Your task to perform on an android device: open app "DoorDash - Dasher" (install if not already installed) Image 0: 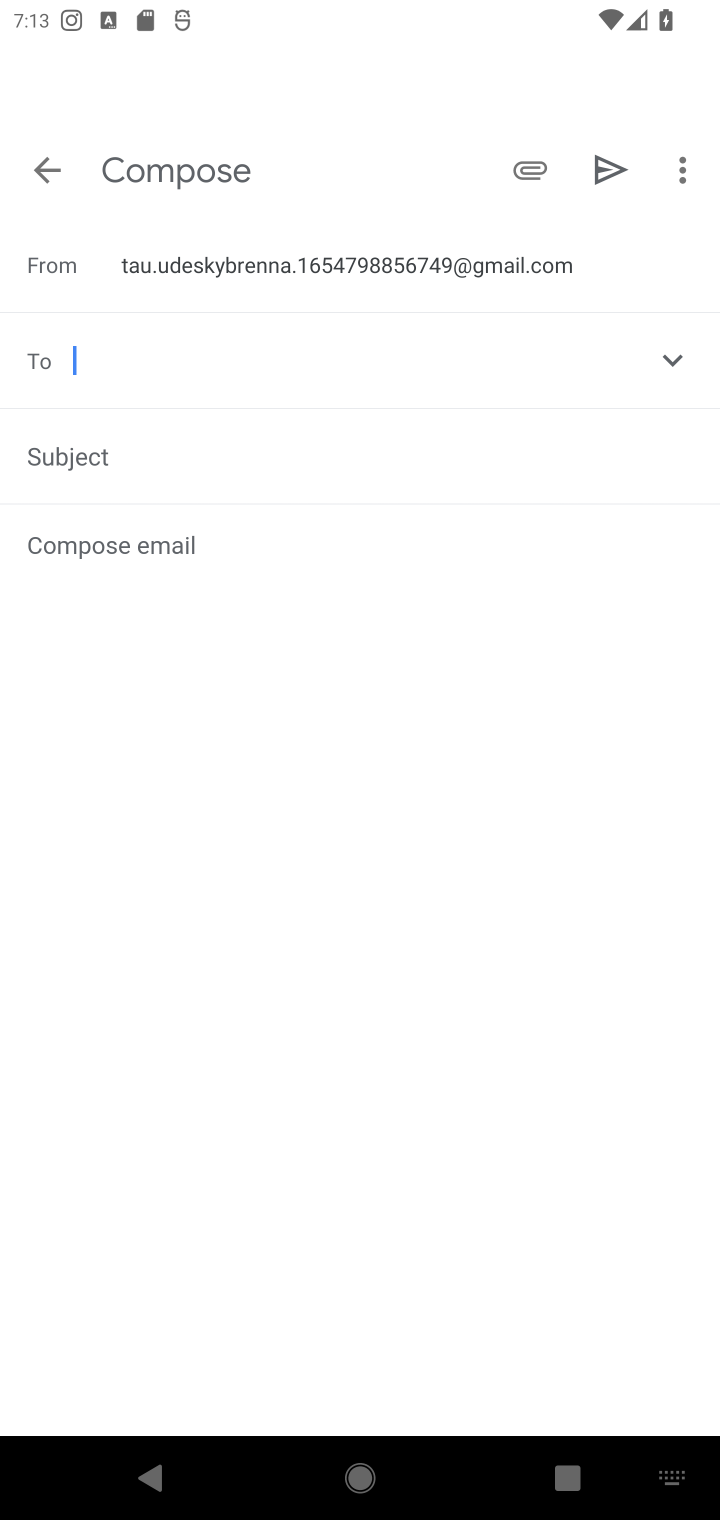
Step 0: press home button
Your task to perform on an android device: open app "DoorDash - Dasher" (install if not already installed) Image 1: 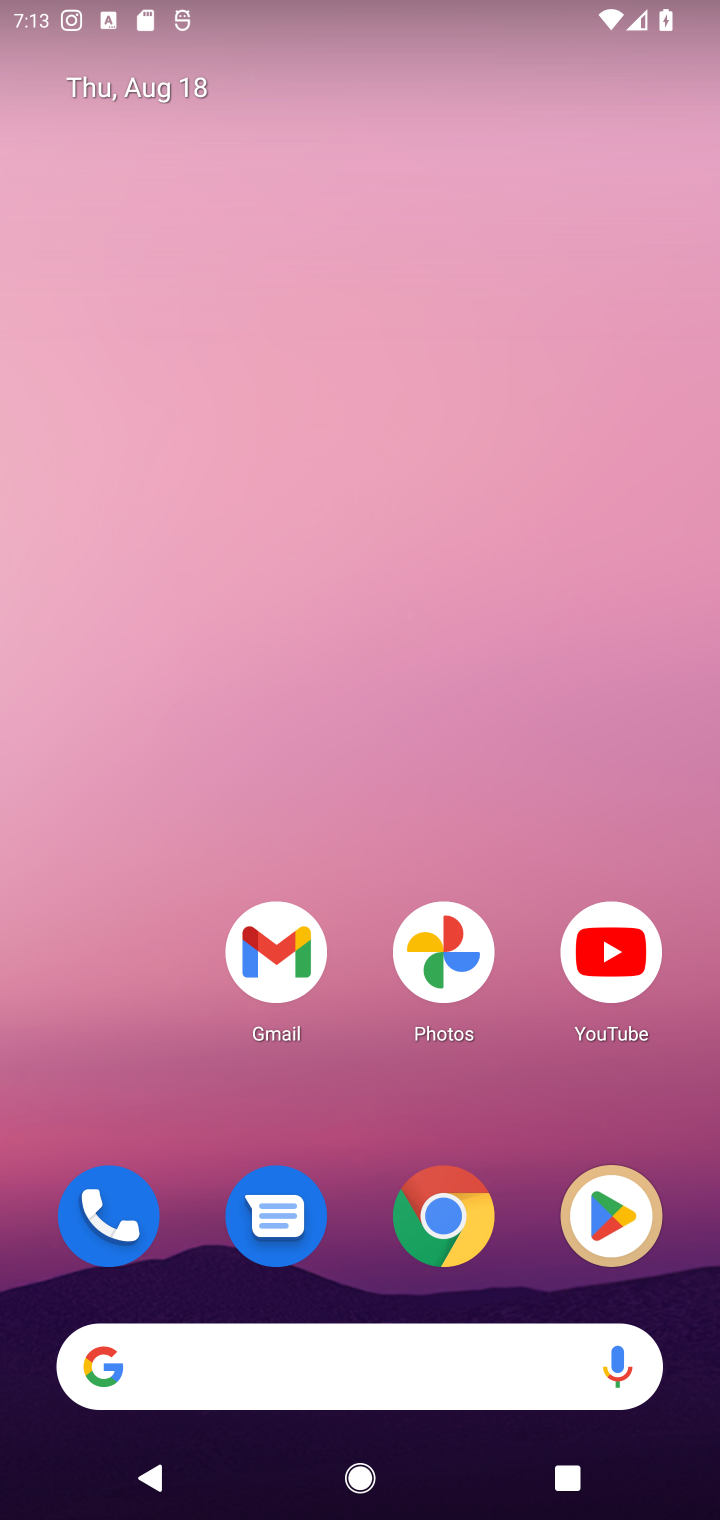
Step 1: click (605, 1192)
Your task to perform on an android device: open app "DoorDash - Dasher" (install if not already installed) Image 2: 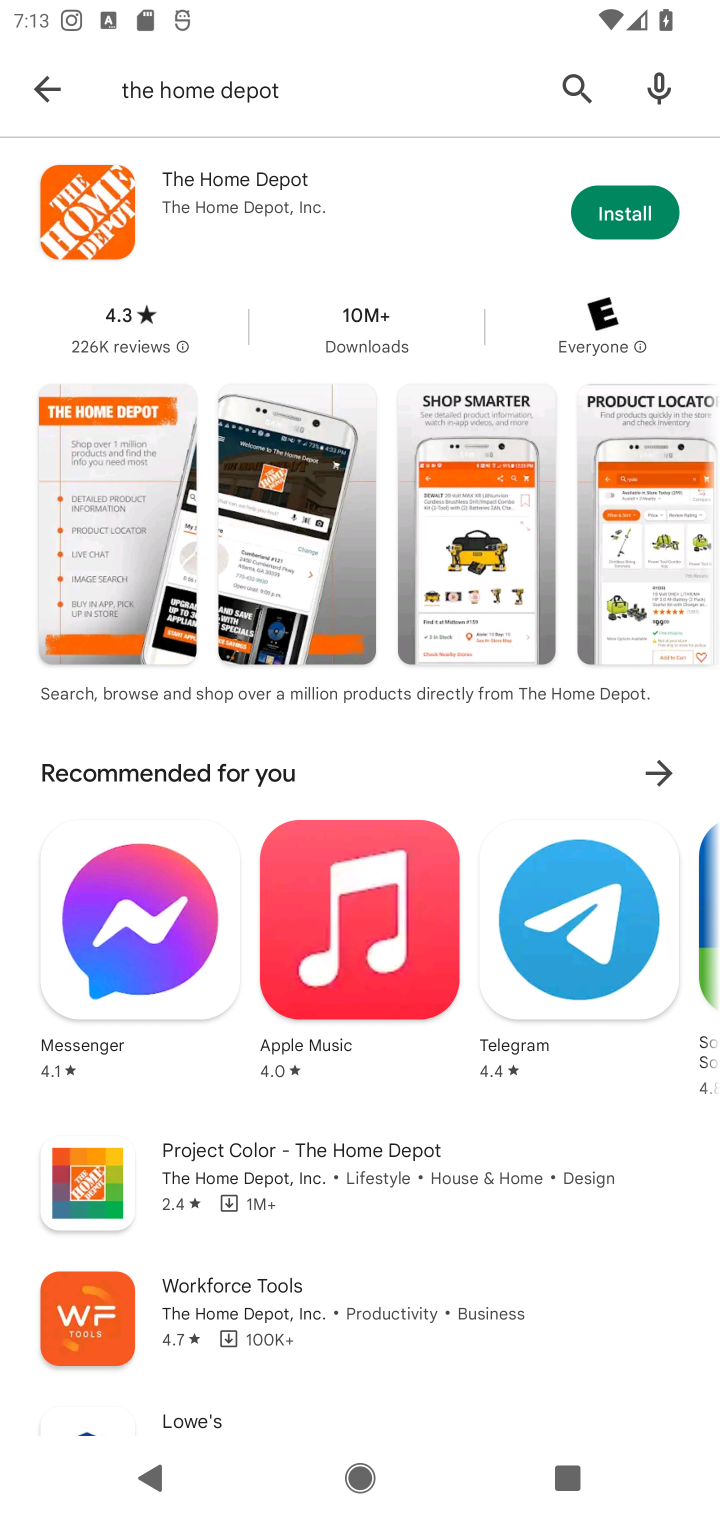
Step 2: click (558, 75)
Your task to perform on an android device: open app "DoorDash - Dasher" (install if not already installed) Image 3: 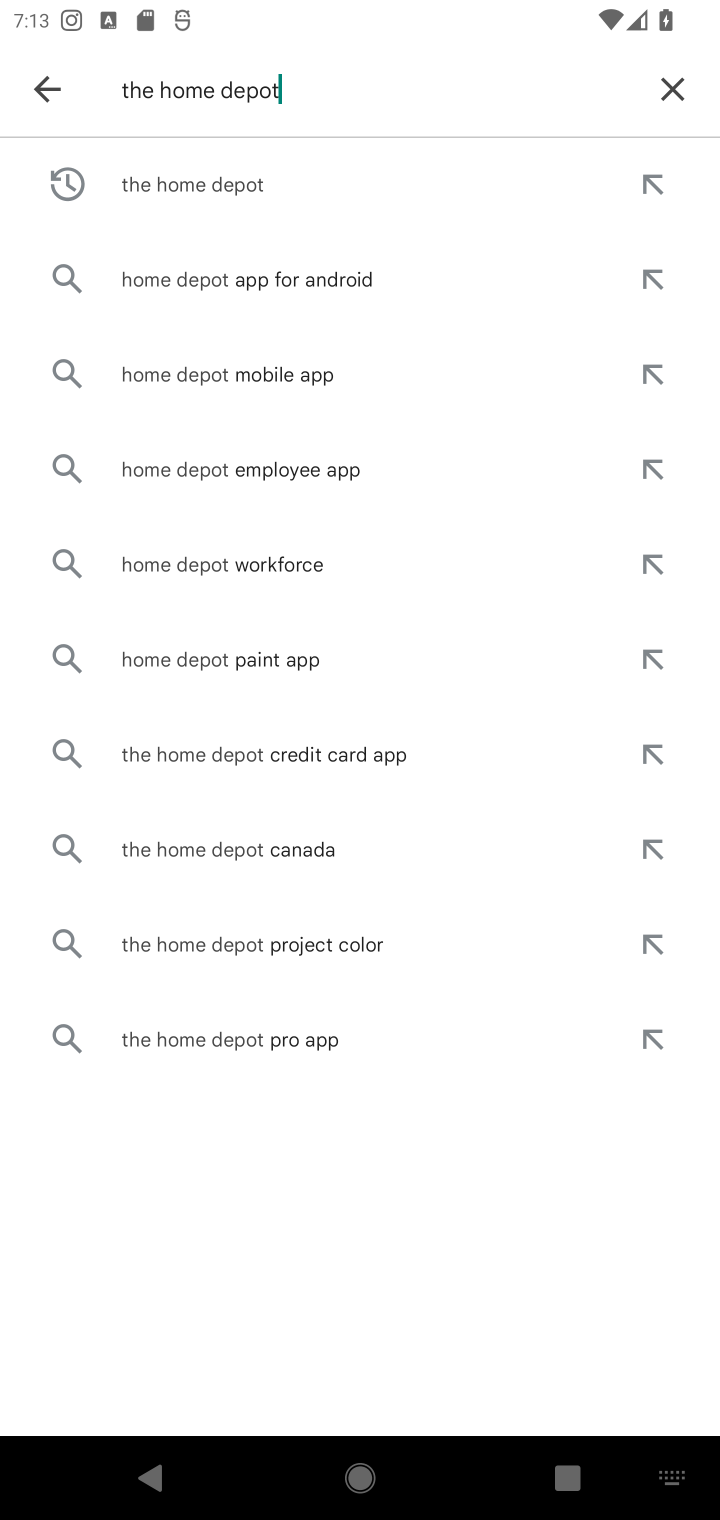
Step 3: click (677, 92)
Your task to perform on an android device: open app "DoorDash - Dasher" (install if not already installed) Image 4: 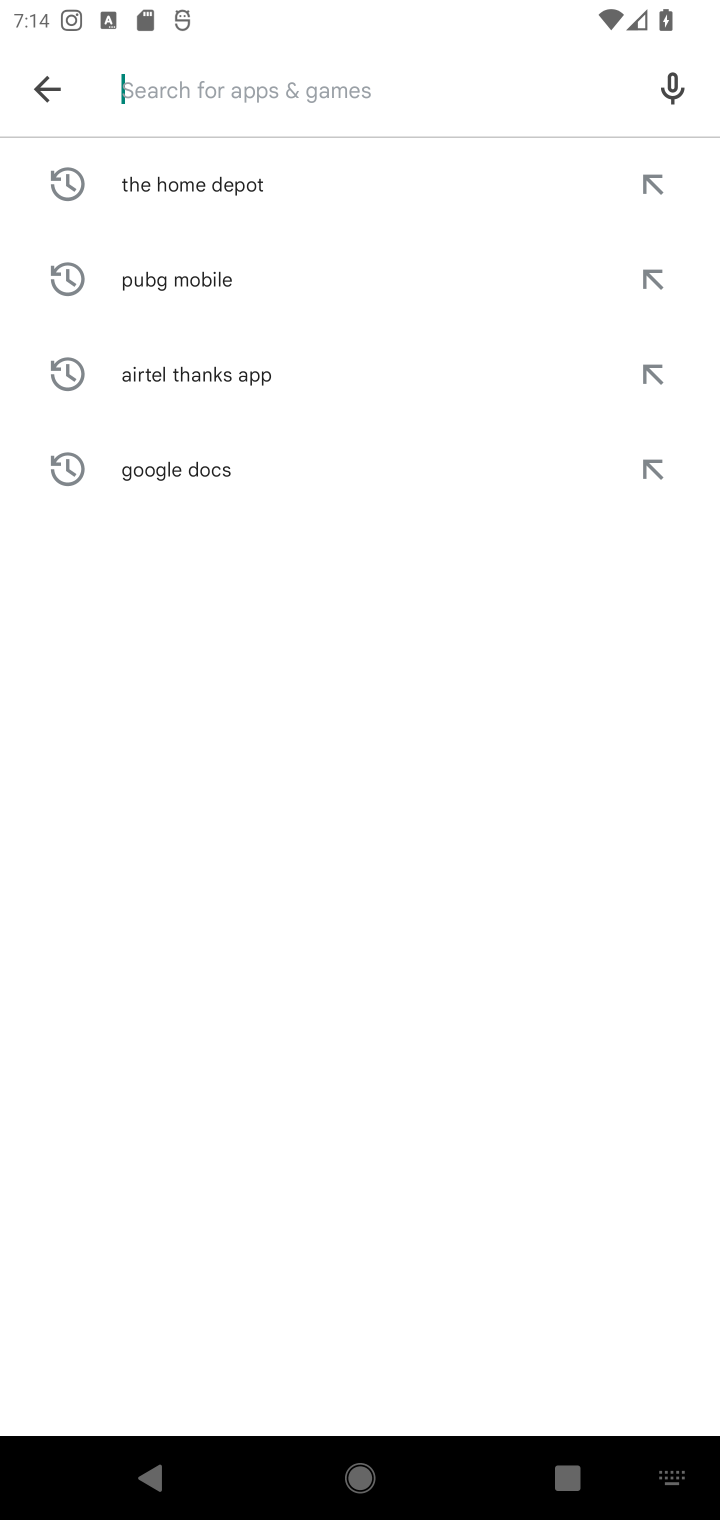
Step 4: press home button
Your task to perform on an android device: open app "DoorDash - Dasher" (install if not already installed) Image 5: 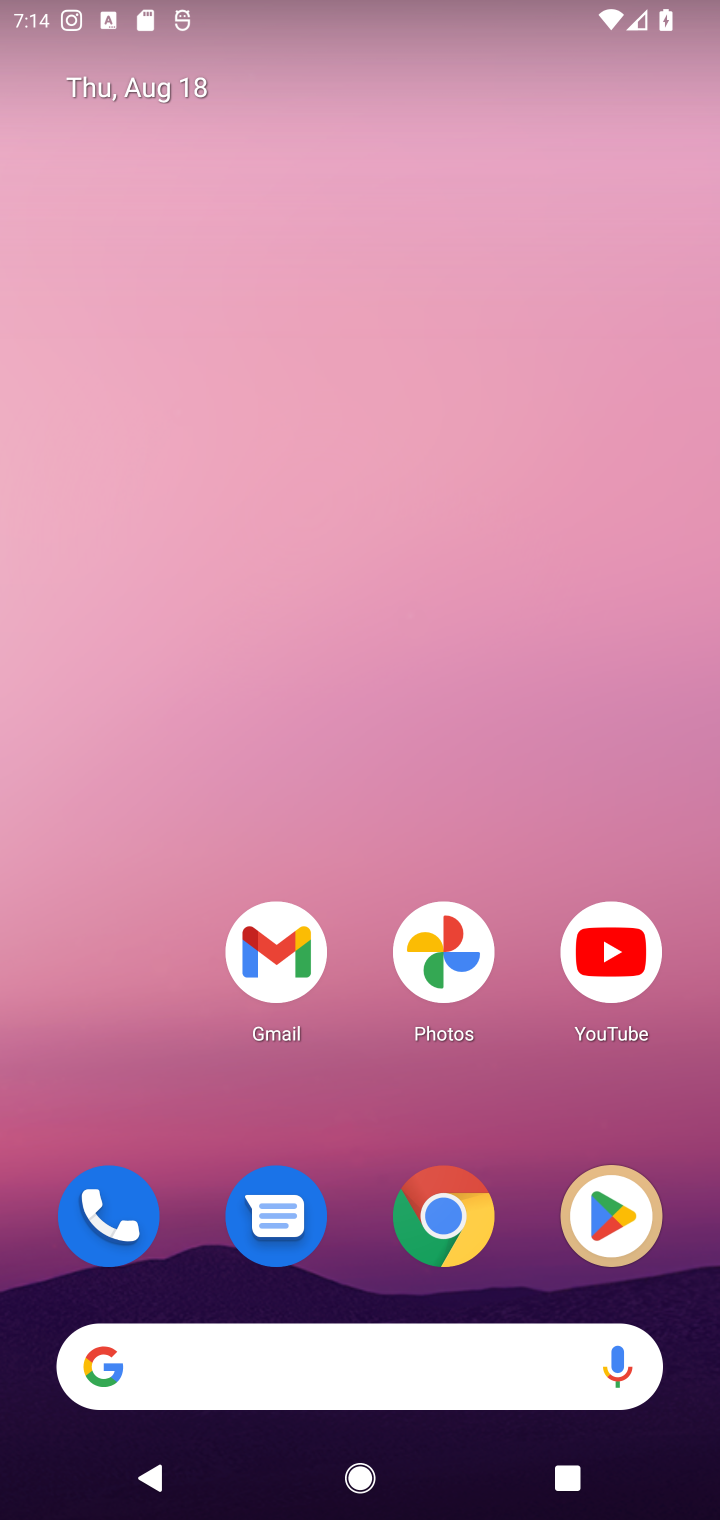
Step 5: click (609, 1210)
Your task to perform on an android device: open app "DoorDash - Dasher" (install if not already installed) Image 6: 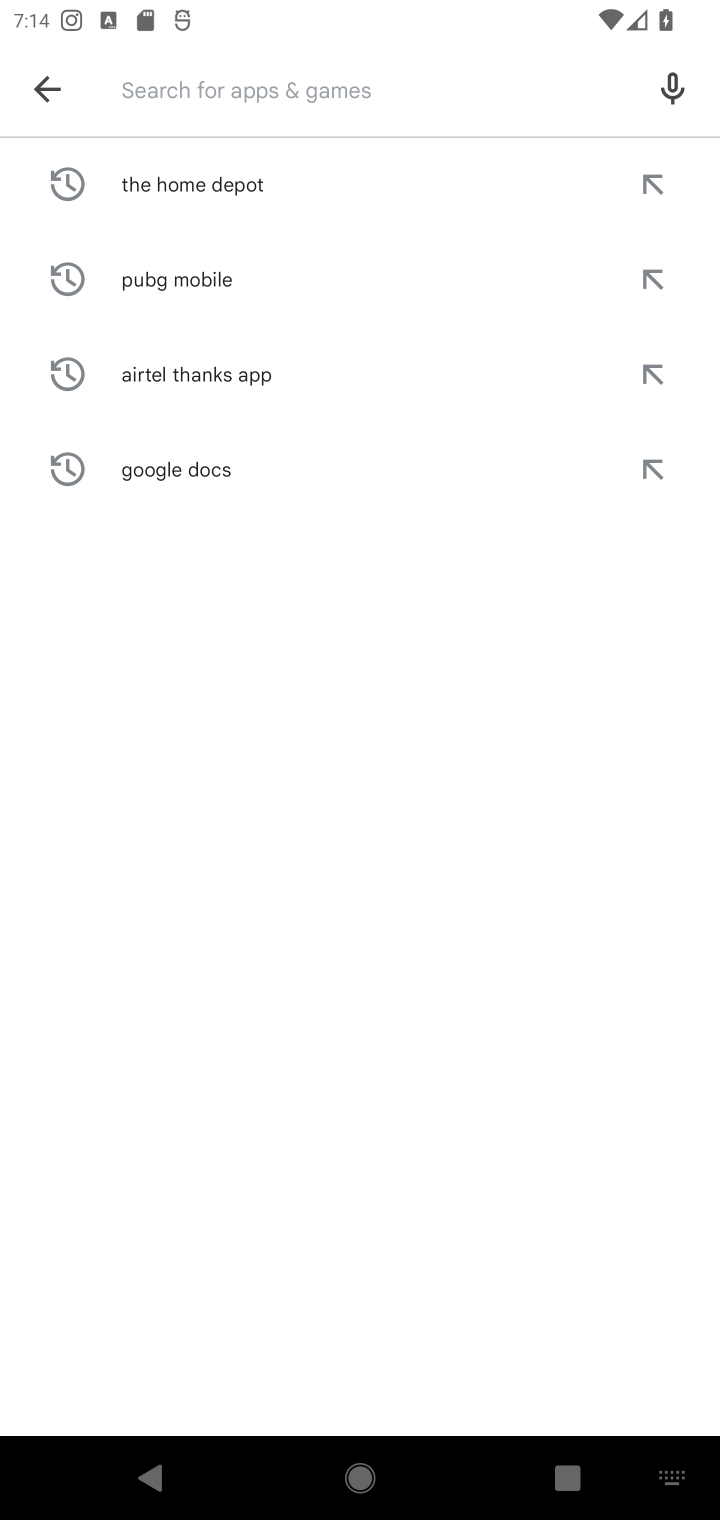
Step 6: click (546, 74)
Your task to perform on an android device: open app "DoorDash - Dasher" (install if not already installed) Image 7: 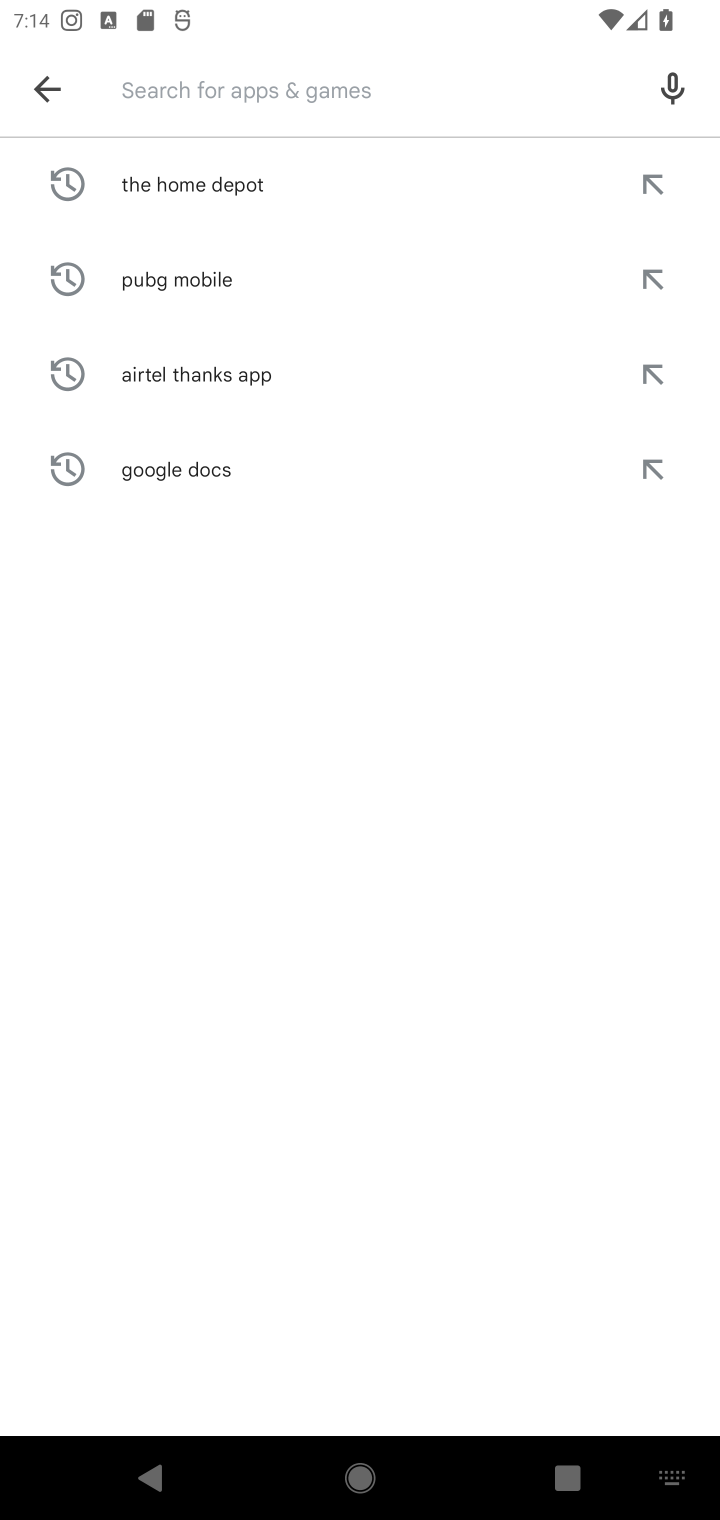
Step 7: type "DoorDash - Dasher"
Your task to perform on an android device: open app "DoorDash - Dasher" (install if not already installed) Image 8: 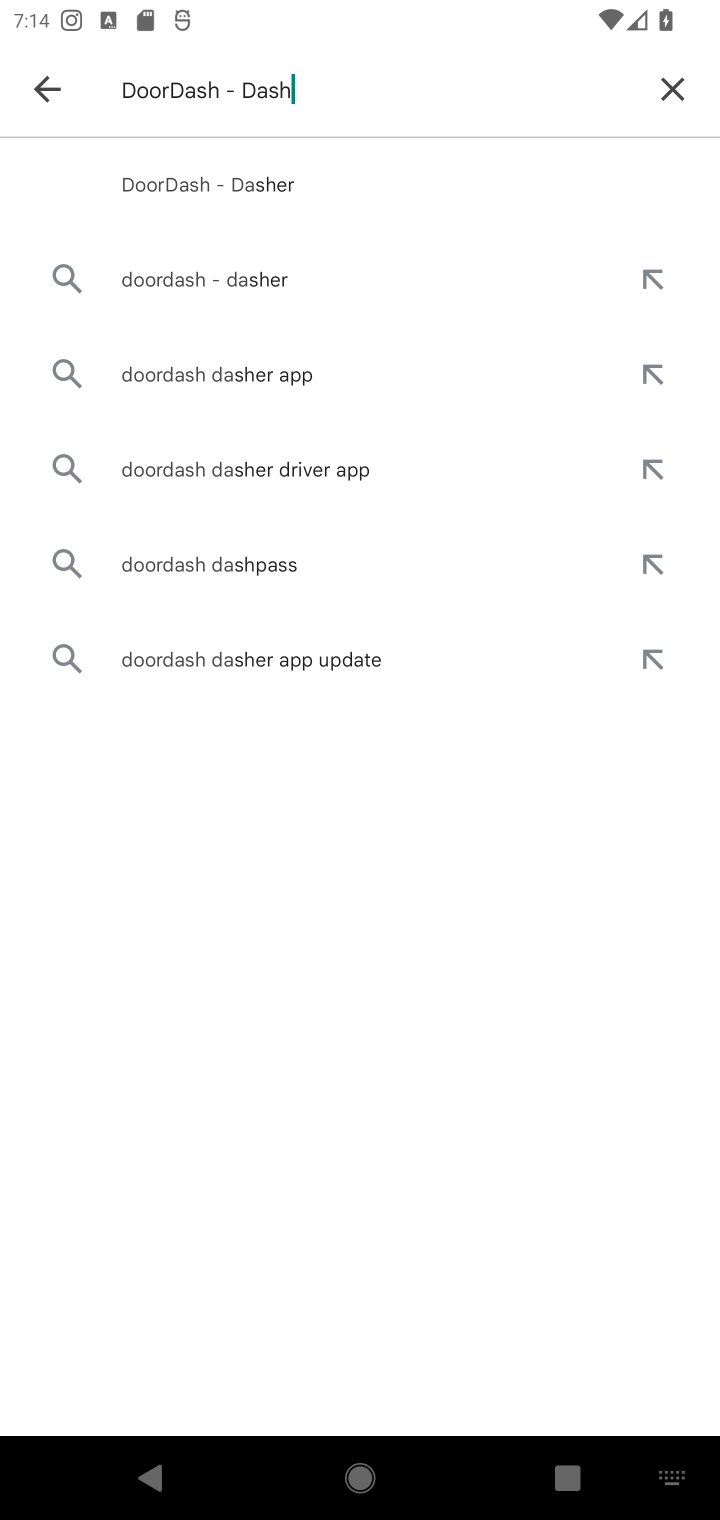
Step 8: type ""
Your task to perform on an android device: open app "DoorDash - Dasher" (install if not already installed) Image 9: 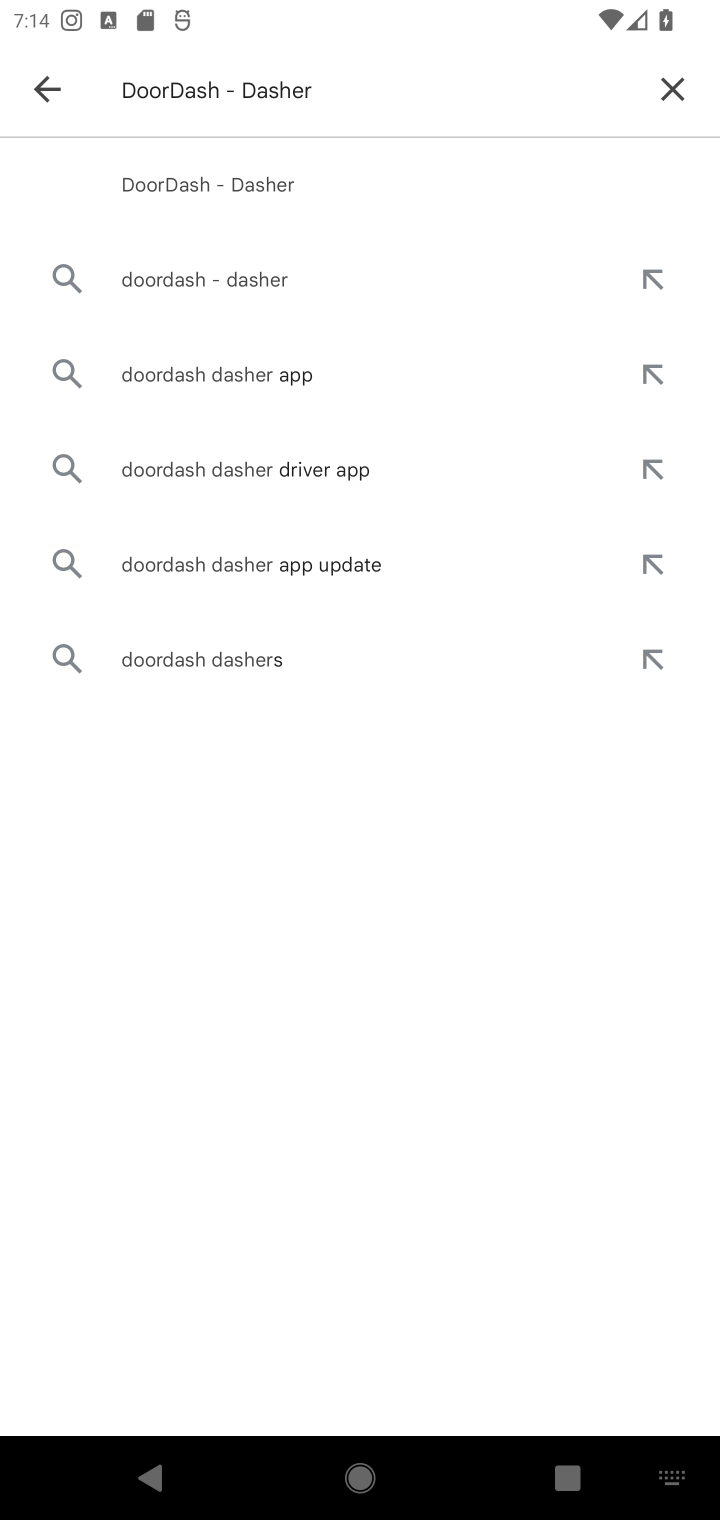
Step 9: click (213, 167)
Your task to perform on an android device: open app "DoorDash - Dasher" (install if not already installed) Image 10: 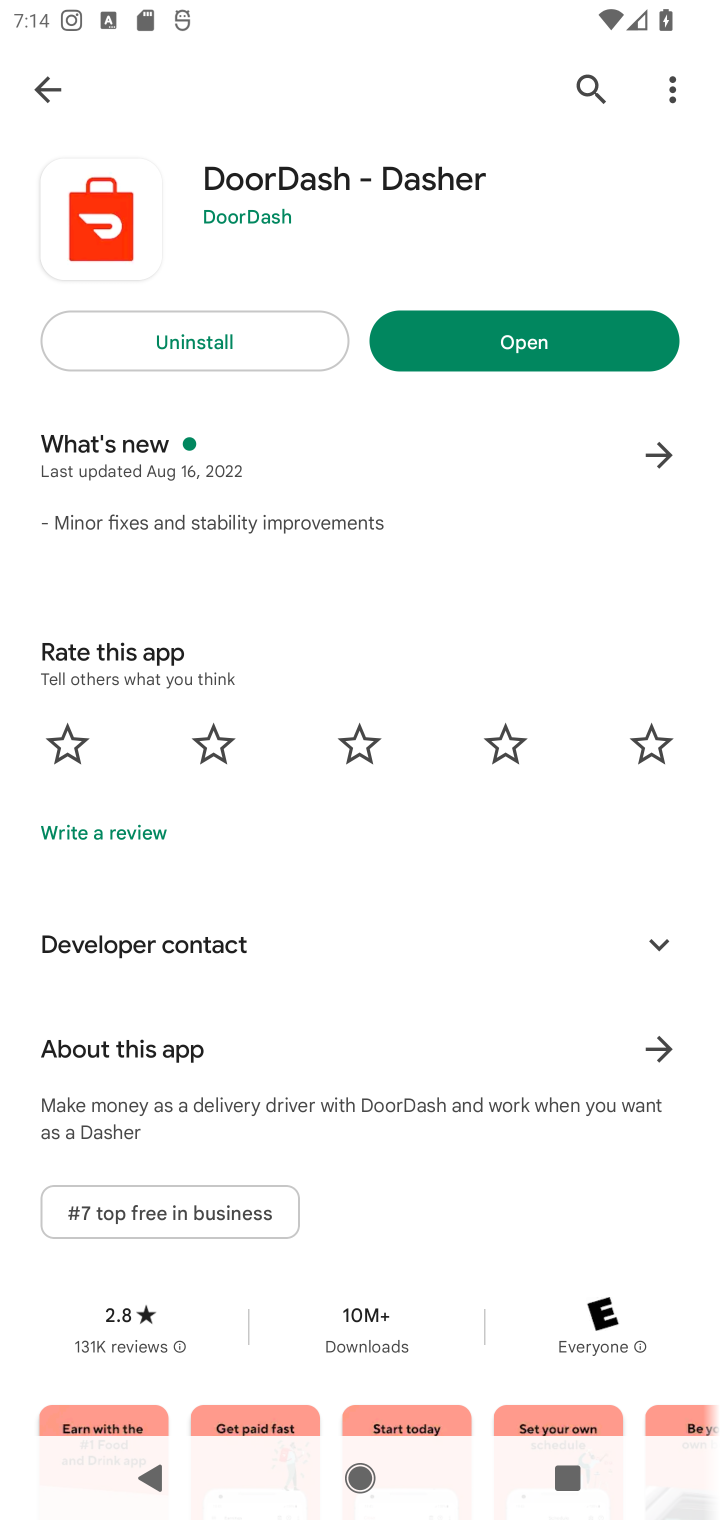
Step 10: click (457, 344)
Your task to perform on an android device: open app "DoorDash - Dasher" (install if not already installed) Image 11: 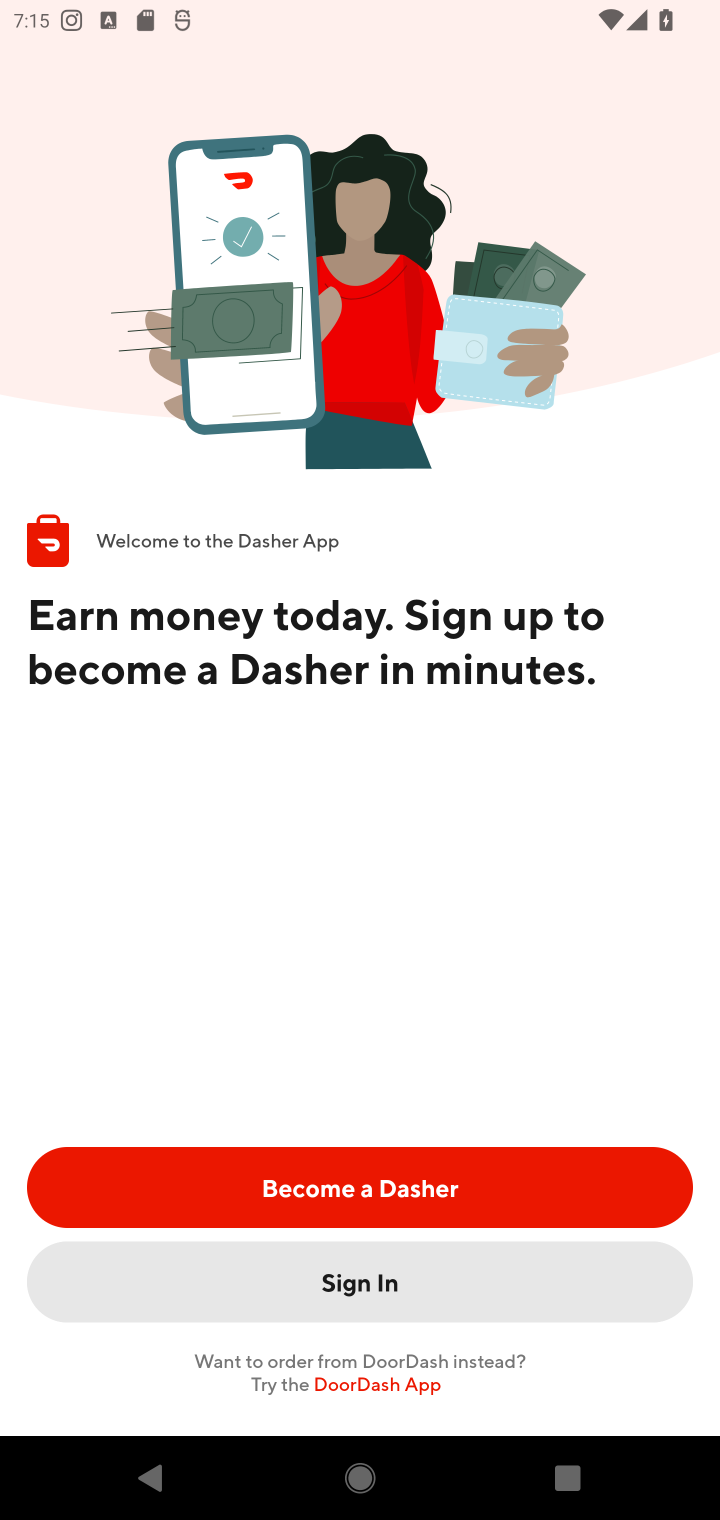
Step 11: task complete